Your task to perform on an android device: clear all cookies in the chrome app Image 0: 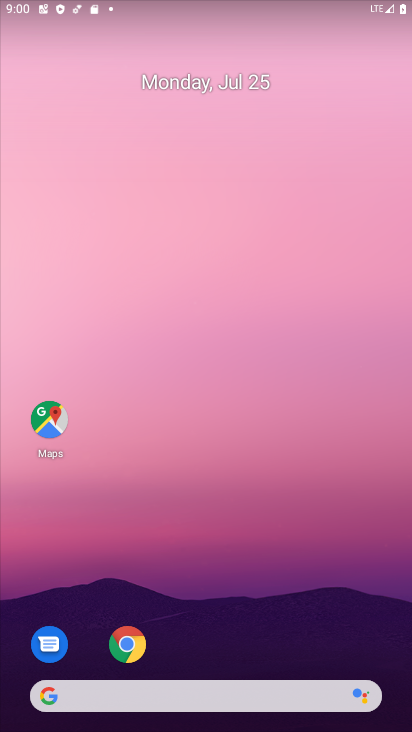
Step 0: drag from (241, 614) to (222, 140)
Your task to perform on an android device: clear all cookies in the chrome app Image 1: 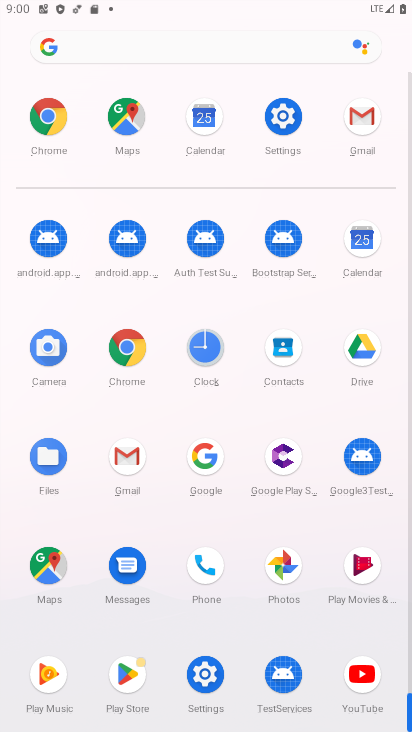
Step 1: click (124, 364)
Your task to perform on an android device: clear all cookies in the chrome app Image 2: 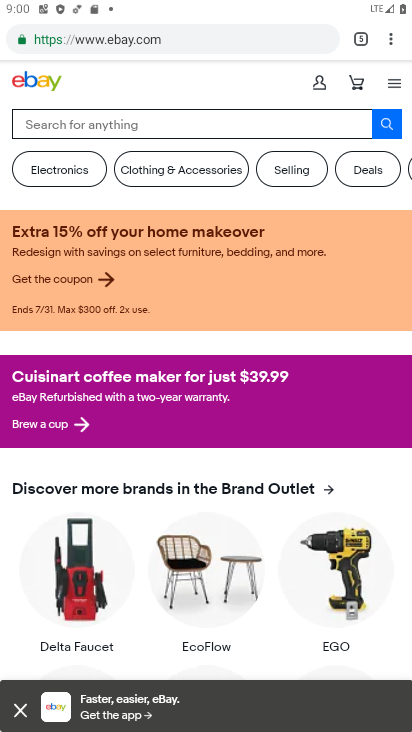
Step 2: click (390, 38)
Your task to perform on an android device: clear all cookies in the chrome app Image 3: 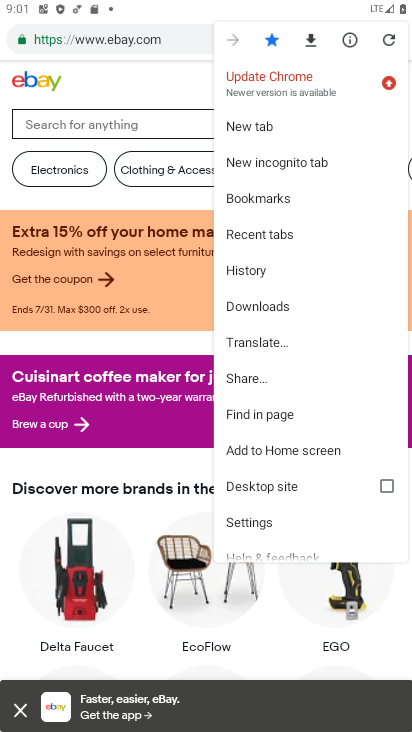
Step 3: click (271, 525)
Your task to perform on an android device: clear all cookies in the chrome app Image 4: 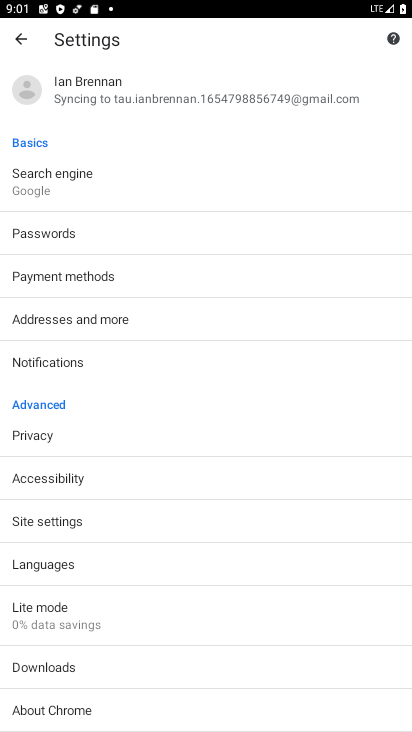
Step 4: press back button
Your task to perform on an android device: clear all cookies in the chrome app Image 5: 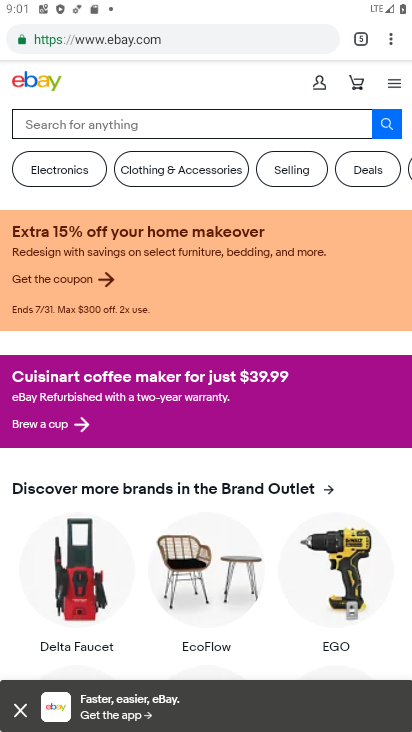
Step 5: click (390, 40)
Your task to perform on an android device: clear all cookies in the chrome app Image 6: 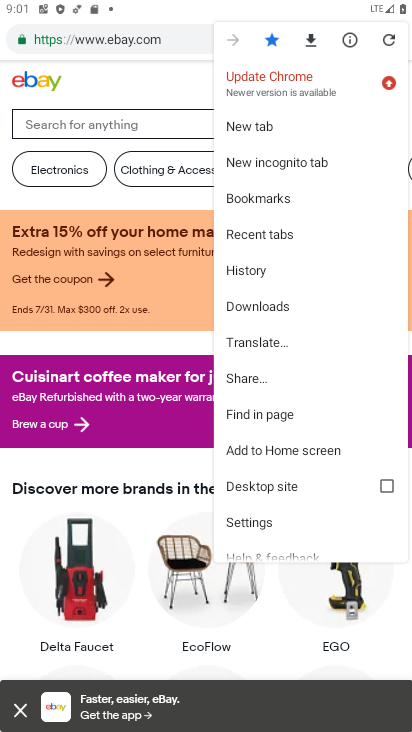
Step 6: click (276, 277)
Your task to perform on an android device: clear all cookies in the chrome app Image 7: 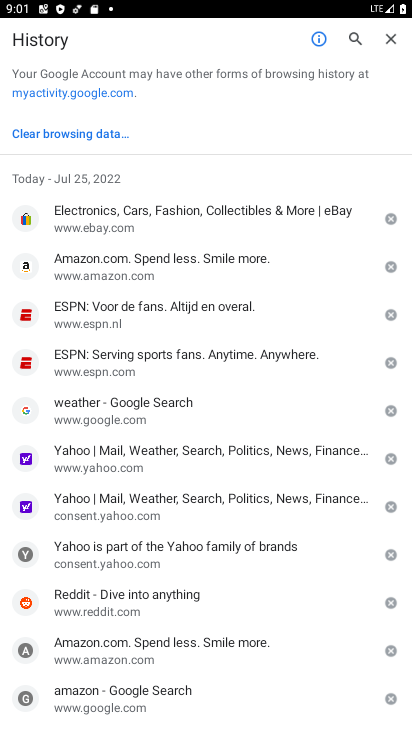
Step 7: click (98, 134)
Your task to perform on an android device: clear all cookies in the chrome app Image 8: 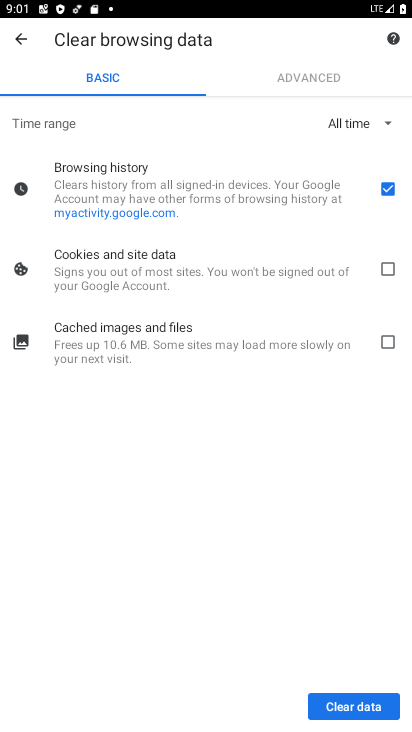
Step 8: click (387, 276)
Your task to perform on an android device: clear all cookies in the chrome app Image 9: 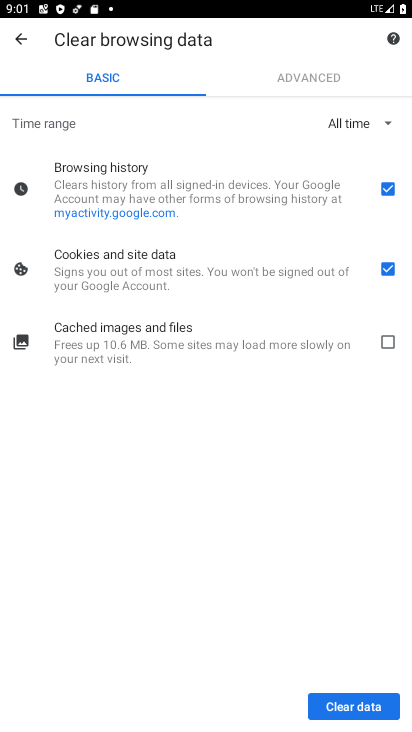
Step 9: click (393, 190)
Your task to perform on an android device: clear all cookies in the chrome app Image 10: 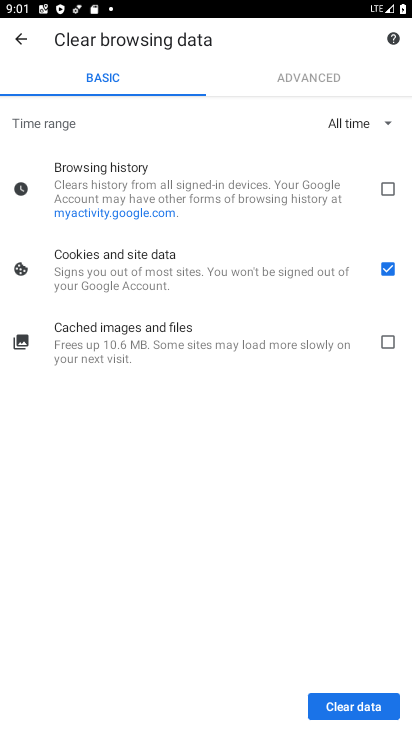
Step 10: click (336, 705)
Your task to perform on an android device: clear all cookies in the chrome app Image 11: 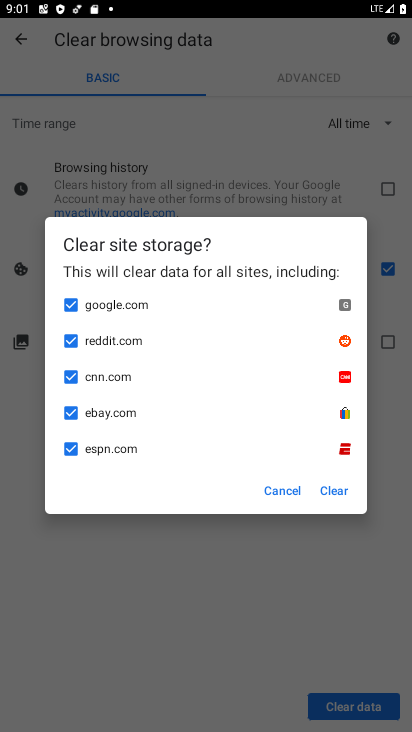
Step 11: click (343, 486)
Your task to perform on an android device: clear all cookies in the chrome app Image 12: 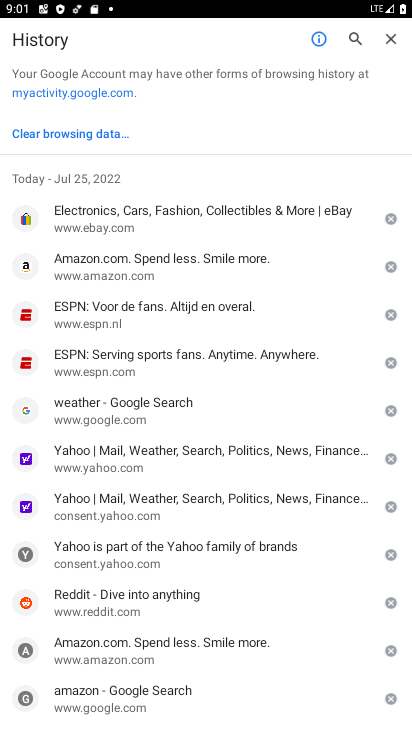
Step 12: task complete